Your task to perform on an android device: Go to CNN.com Image 0: 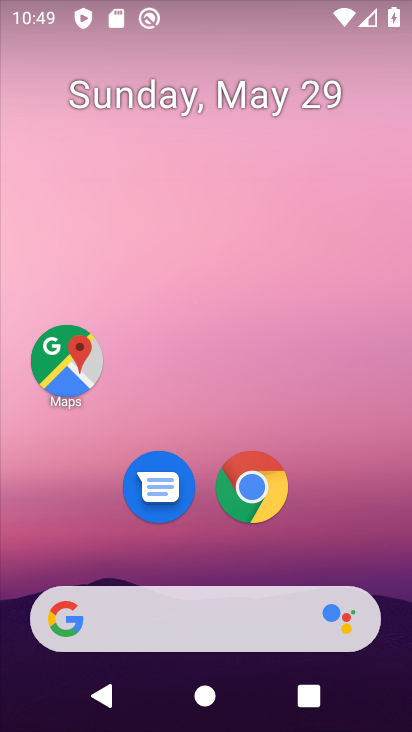
Step 0: drag from (217, 558) to (234, 0)
Your task to perform on an android device: Go to CNN.com Image 1: 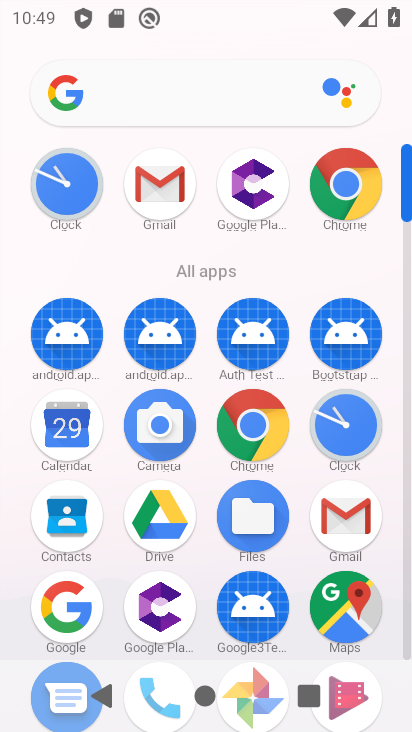
Step 1: click (351, 171)
Your task to perform on an android device: Go to CNN.com Image 2: 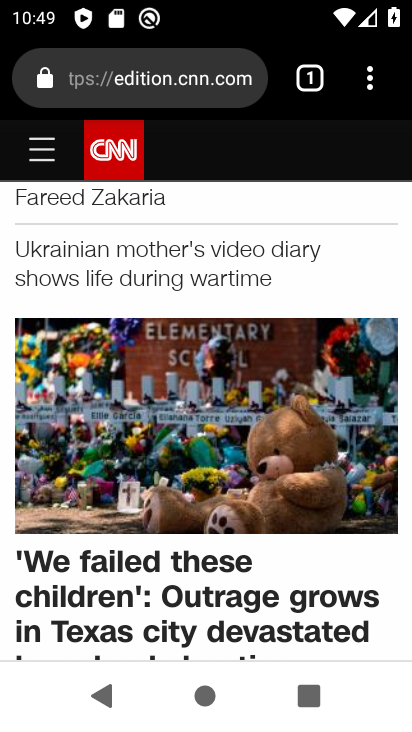
Step 2: task complete